Your task to perform on an android device: open chrome and create a bookmark for the current page Image 0: 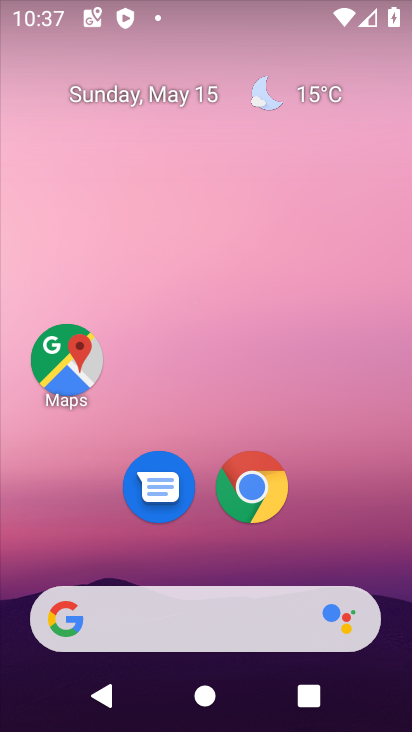
Step 0: click (248, 486)
Your task to perform on an android device: open chrome and create a bookmark for the current page Image 1: 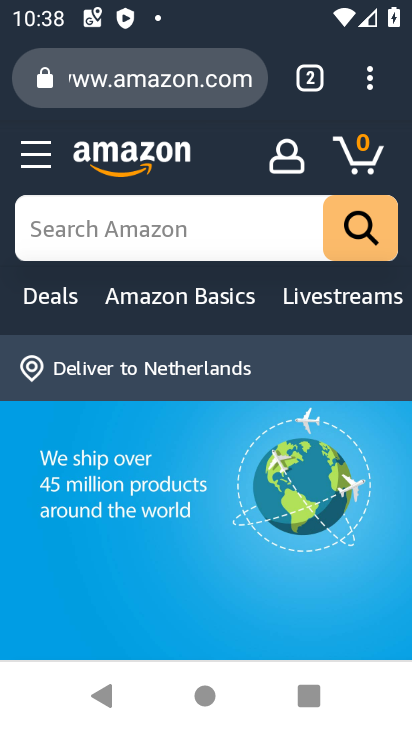
Step 1: click (366, 87)
Your task to perform on an android device: open chrome and create a bookmark for the current page Image 2: 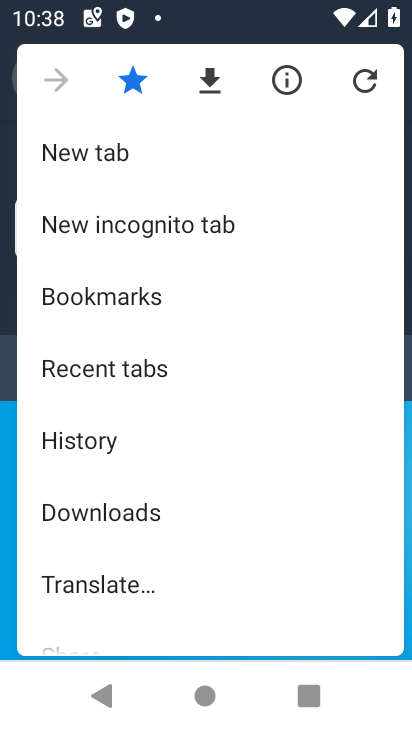
Step 2: task complete